Your task to perform on an android device: Open Google Chrome Image 0: 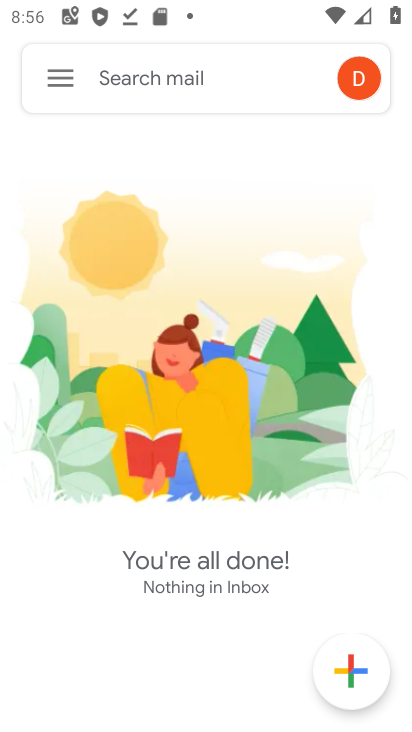
Step 0: press back button
Your task to perform on an android device: Open Google Chrome Image 1: 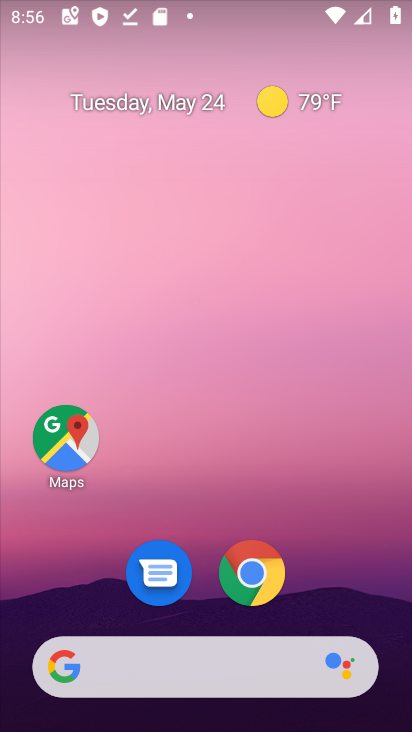
Step 1: drag from (266, 535) to (236, 22)
Your task to perform on an android device: Open Google Chrome Image 2: 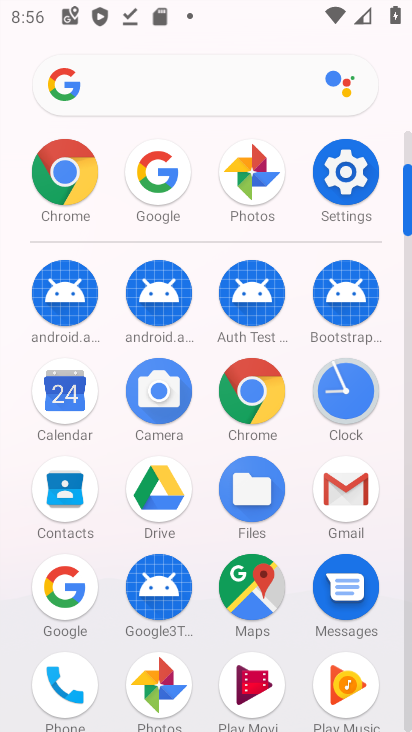
Step 2: click (72, 165)
Your task to perform on an android device: Open Google Chrome Image 3: 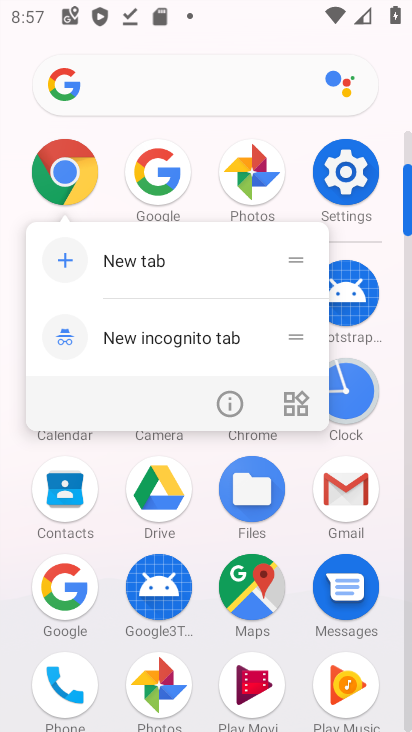
Step 3: click (116, 253)
Your task to perform on an android device: Open Google Chrome Image 4: 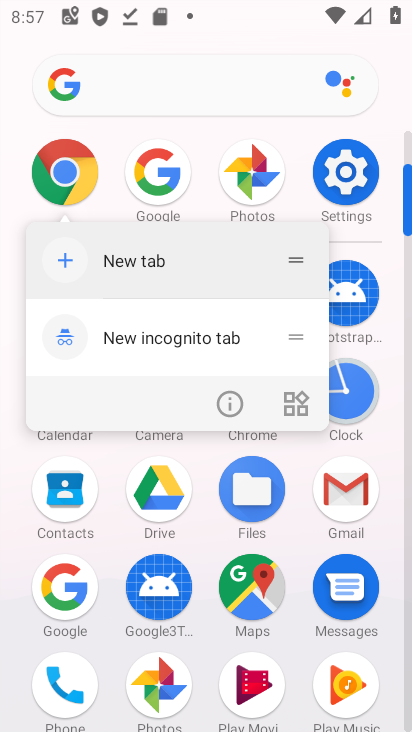
Step 4: click (121, 253)
Your task to perform on an android device: Open Google Chrome Image 5: 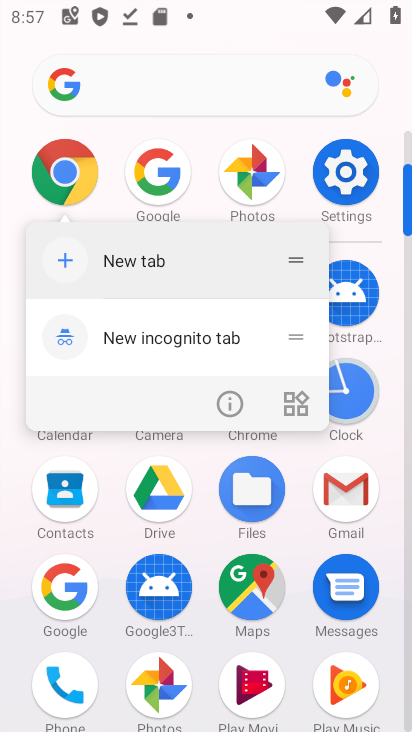
Step 5: click (124, 253)
Your task to perform on an android device: Open Google Chrome Image 6: 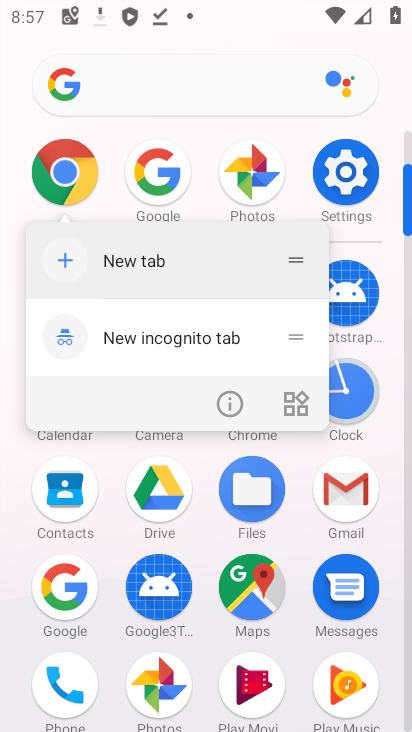
Step 6: click (130, 255)
Your task to perform on an android device: Open Google Chrome Image 7: 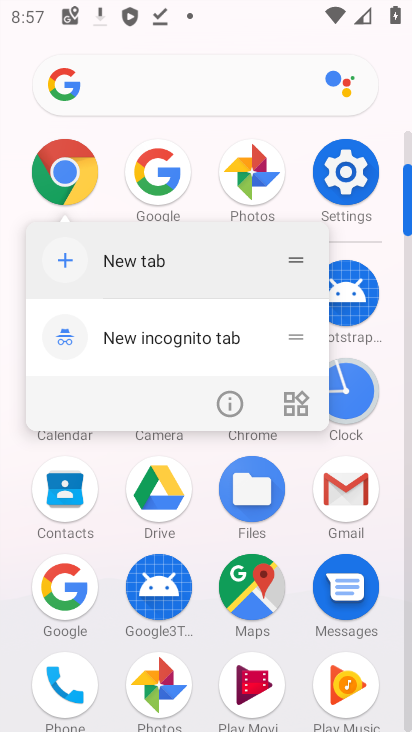
Step 7: click (131, 255)
Your task to perform on an android device: Open Google Chrome Image 8: 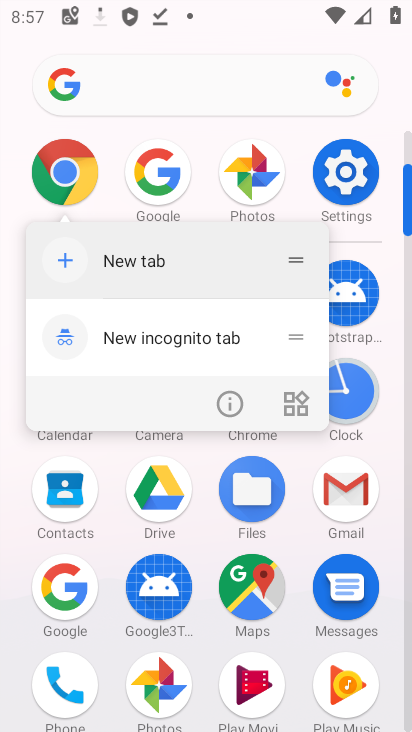
Step 8: click (137, 261)
Your task to perform on an android device: Open Google Chrome Image 9: 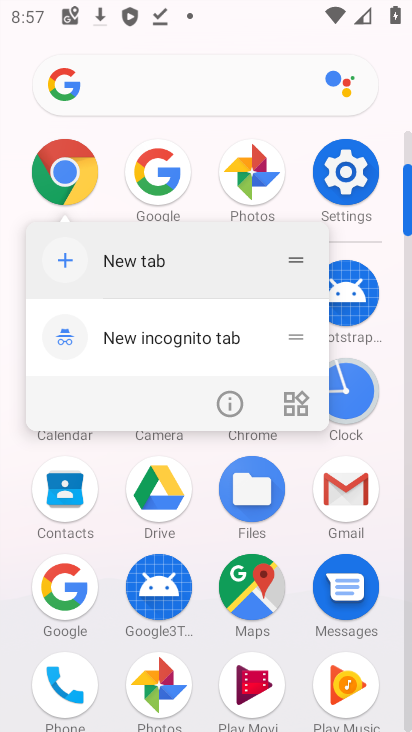
Step 9: click (138, 260)
Your task to perform on an android device: Open Google Chrome Image 10: 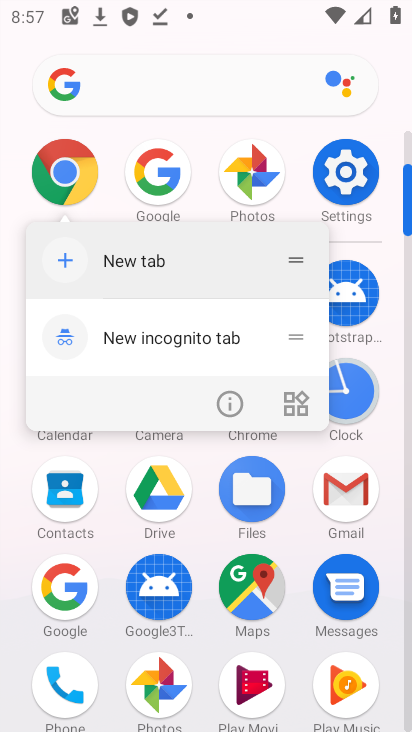
Step 10: click (138, 260)
Your task to perform on an android device: Open Google Chrome Image 11: 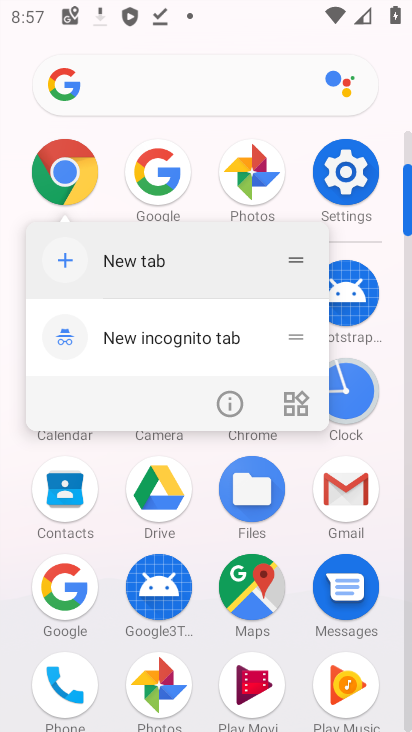
Step 11: click (138, 260)
Your task to perform on an android device: Open Google Chrome Image 12: 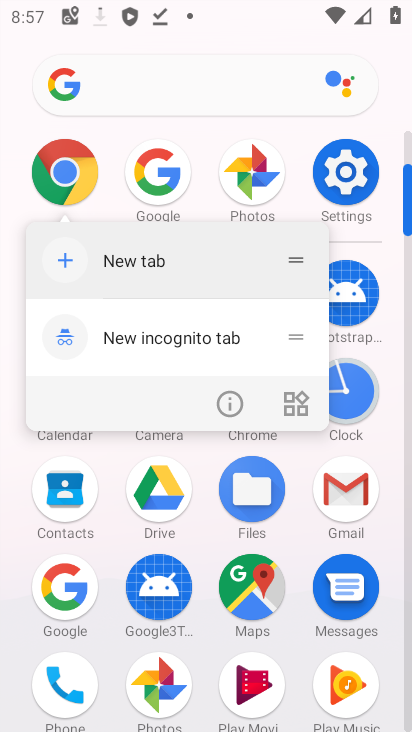
Step 12: click (138, 260)
Your task to perform on an android device: Open Google Chrome Image 13: 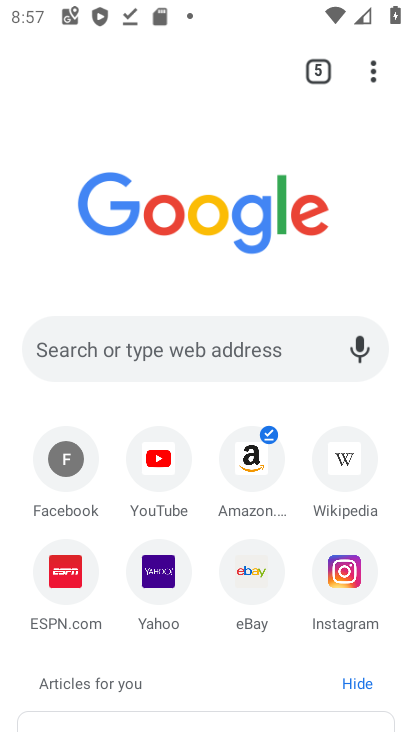
Step 13: click (138, 260)
Your task to perform on an android device: Open Google Chrome Image 14: 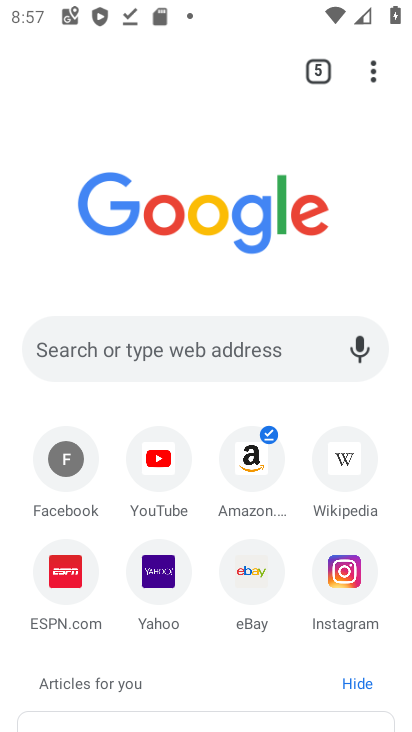
Step 14: click (138, 260)
Your task to perform on an android device: Open Google Chrome Image 15: 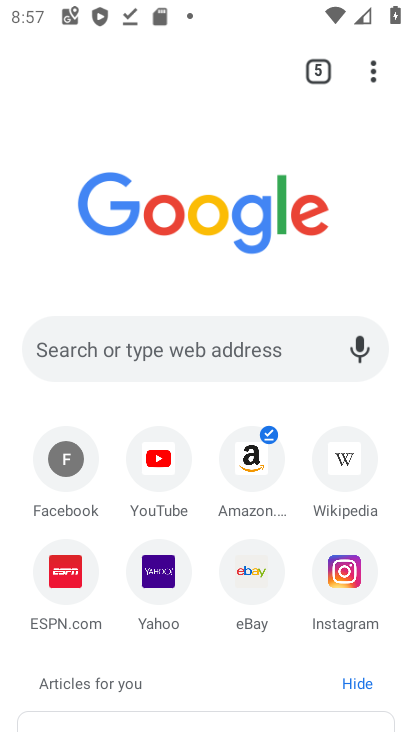
Step 15: task complete